Your task to perform on an android device: turn on bluetooth scan Image 0: 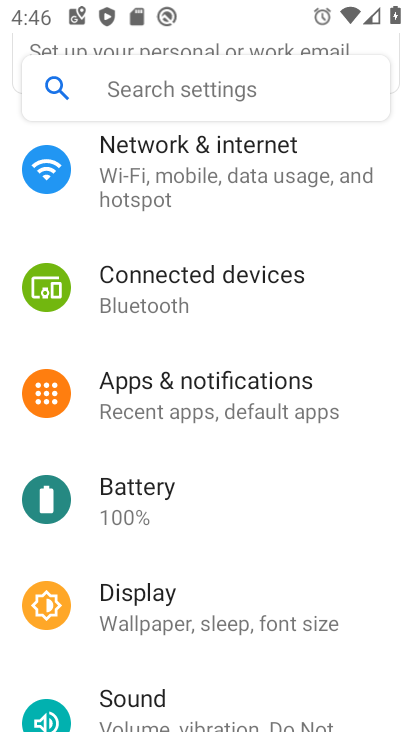
Step 0: press home button
Your task to perform on an android device: turn on bluetooth scan Image 1: 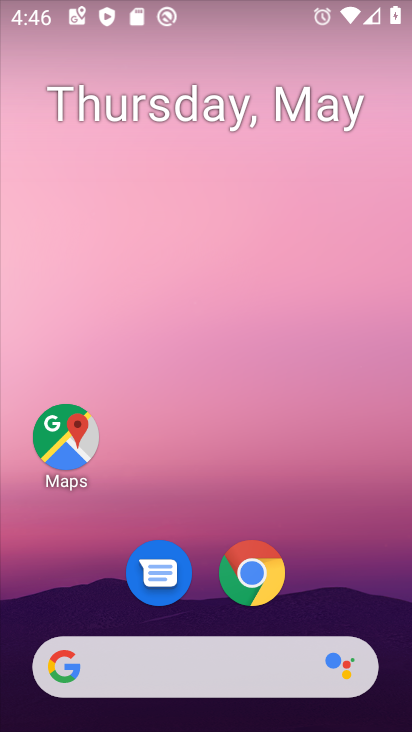
Step 1: drag from (311, 573) to (303, 58)
Your task to perform on an android device: turn on bluetooth scan Image 2: 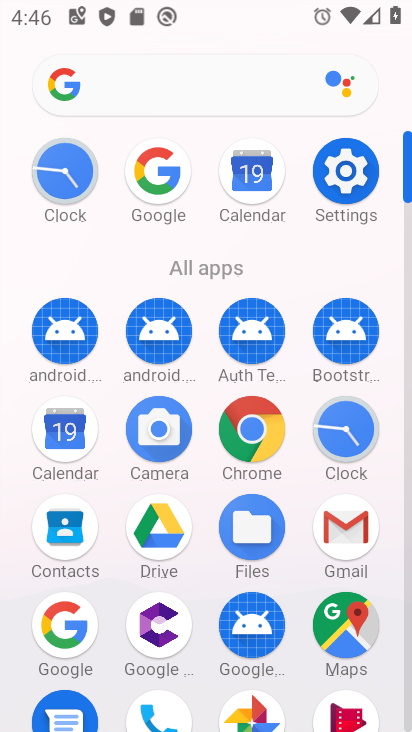
Step 2: click (350, 186)
Your task to perform on an android device: turn on bluetooth scan Image 3: 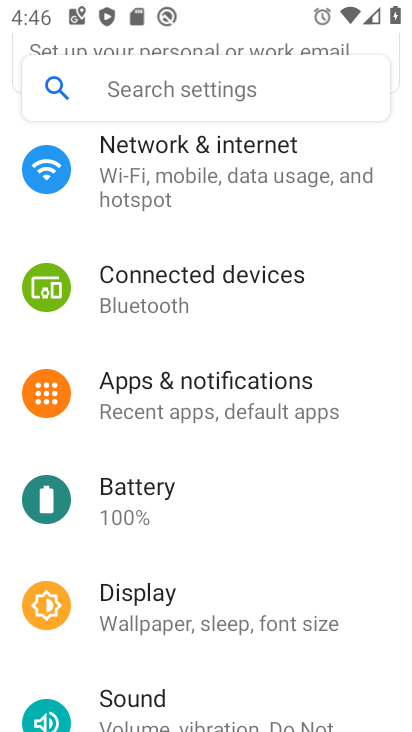
Step 3: drag from (183, 535) to (191, 308)
Your task to perform on an android device: turn on bluetooth scan Image 4: 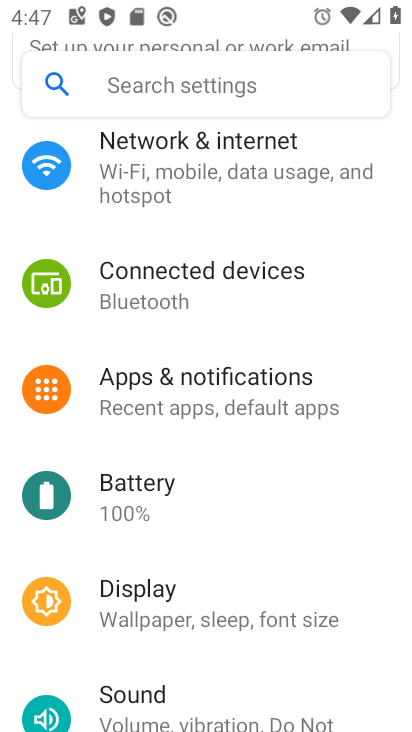
Step 4: drag from (187, 672) to (253, 274)
Your task to perform on an android device: turn on bluetooth scan Image 5: 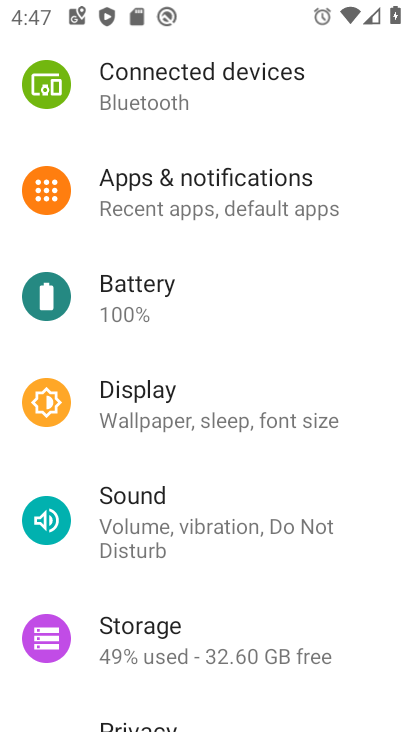
Step 5: drag from (177, 507) to (184, 368)
Your task to perform on an android device: turn on bluetooth scan Image 6: 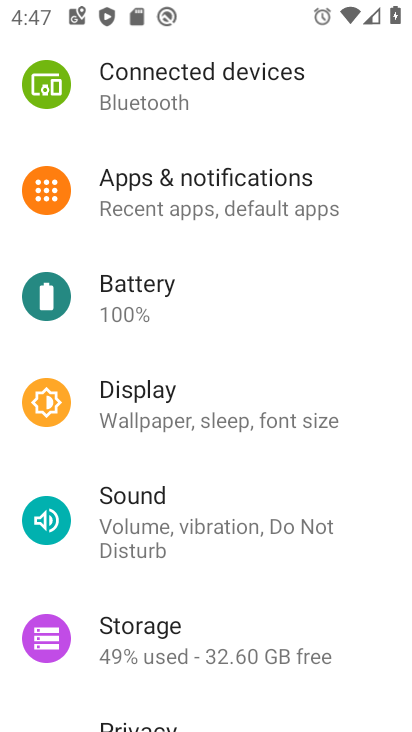
Step 6: click (220, 186)
Your task to perform on an android device: turn on bluetooth scan Image 7: 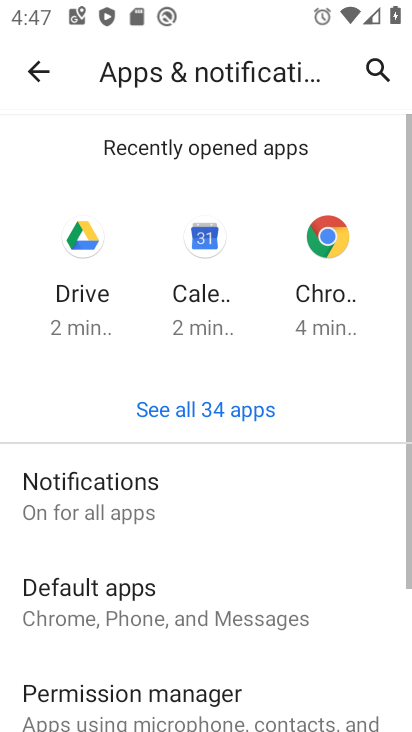
Step 7: click (44, 62)
Your task to perform on an android device: turn on bluetooth scan Image 8: 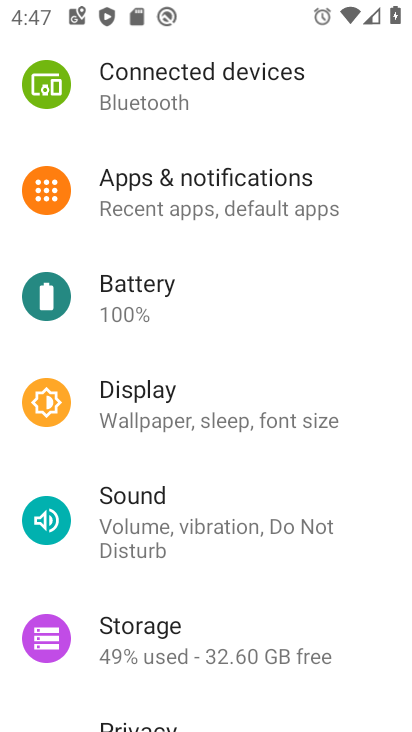
Step 8: drag from (239, 648) to (200, 215)
Your task to perform on an android device: turn on bluetooth scan Image 9: 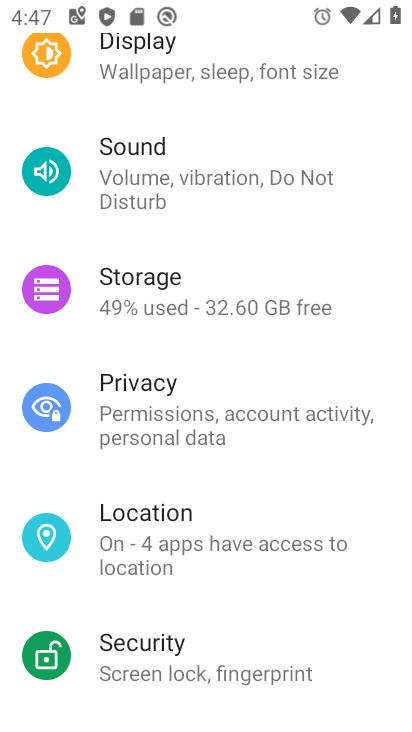
Step 9: click (159, 563)
Your task to perform on an android device: turn on bluetooth scan Image 10: 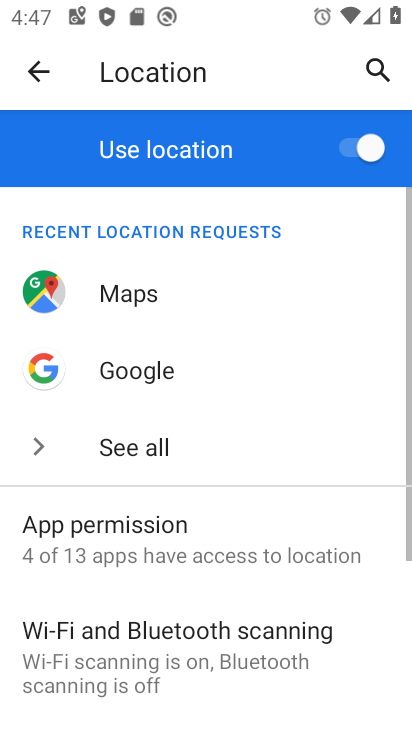
Step 10: drag from (204, 285) to (210, 233)
Your task to perform on an android device: turn on bluetooth scan Image 11: 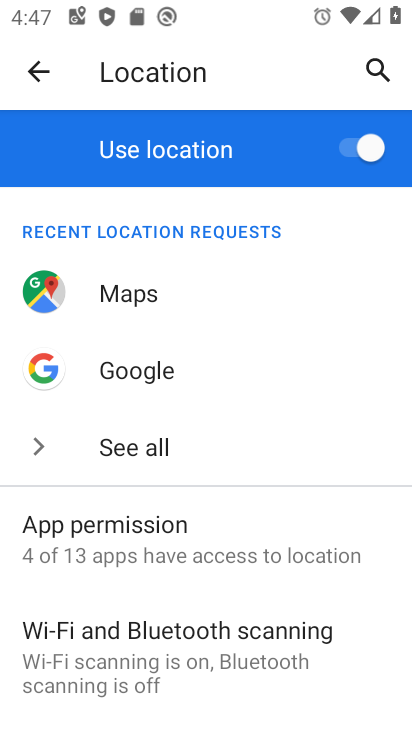
Step 11: drag from (213, 574) to (219, 142)
Your task to perform on an android device: turn on bluetooth scan Image 12: 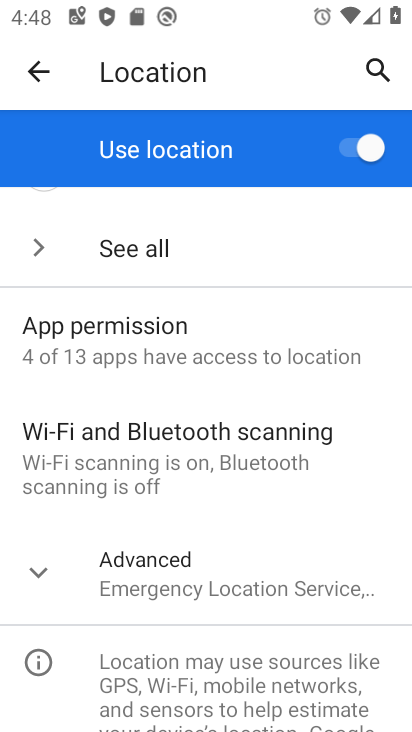
Step 12: click (242, 482)
Your task to perform on an android device: turn on bluetooth scan Image 13: 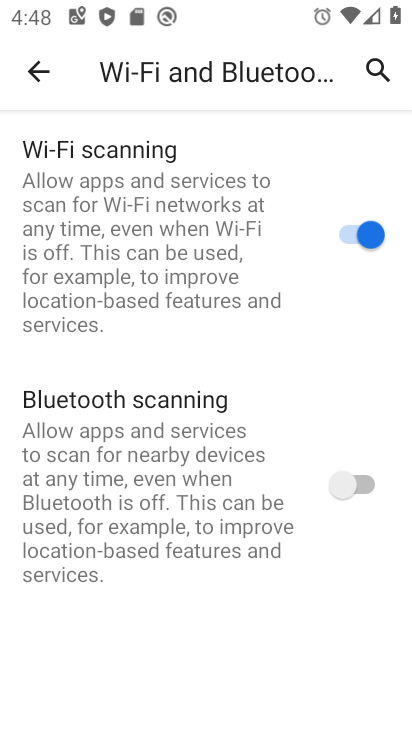
Step 13: click (370, 486)
Your task to perform on an android device: turn on bluetooth scan Image 14: 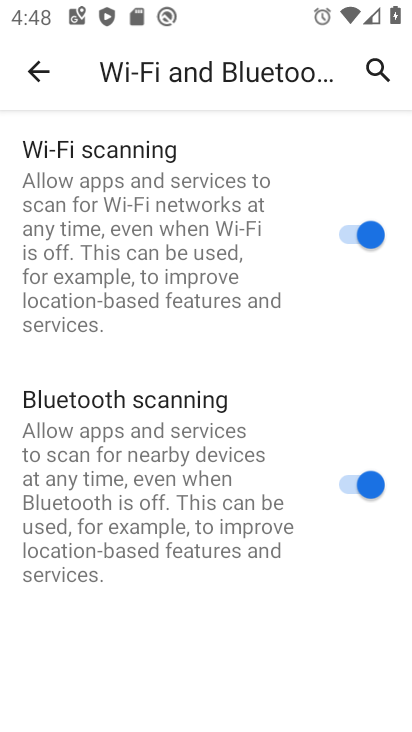
Step 14: task complete